Your task to perform on an android device: Do I have any events today? Image 0: 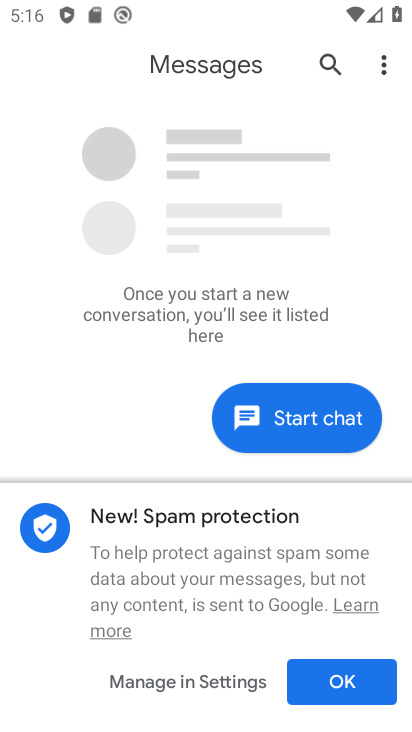
Step 0: press home button
Your task to perform on an android device: Do I have any events today? Image 1: 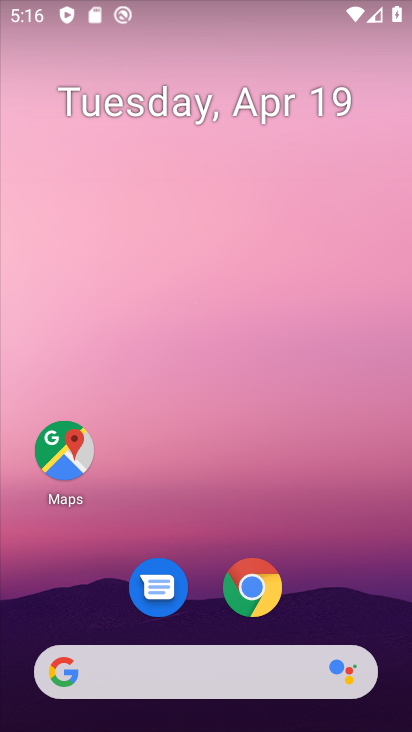
Step 1: click (136, 110)
Your task to perform on an android device: Do I have any events today? Image 2: 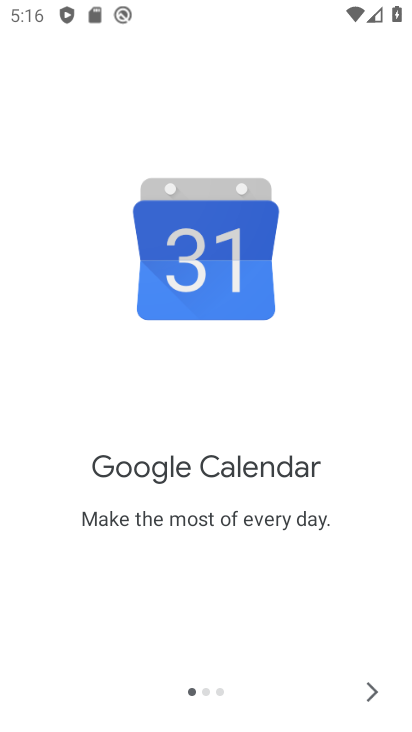
Step 2: click (382, 684)
Your task to perform on an android device: Do I have any events today? Image 3: 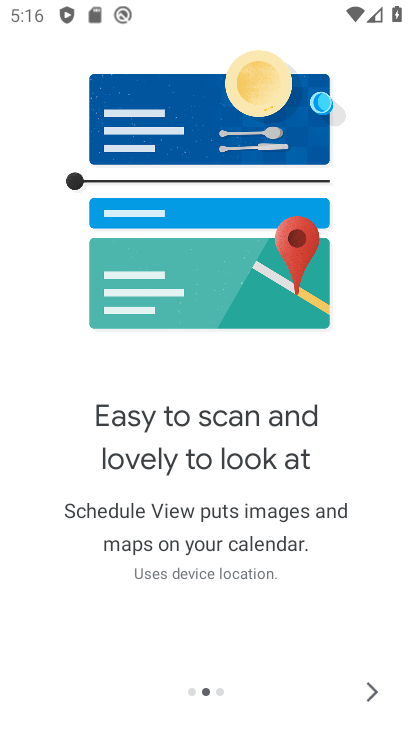
Step 3: click (382, 684)
Your task to perform on an android device: Do I have any events today? Image 4: 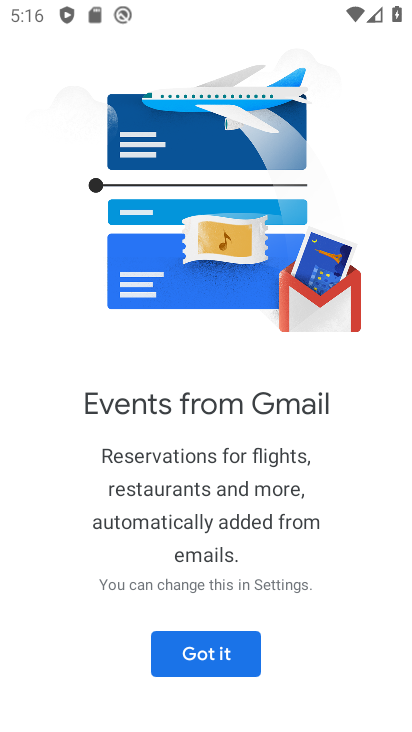
Step 4: click (230, 647)
Your task to perform on an android device: Do I have any events today? Image 5: 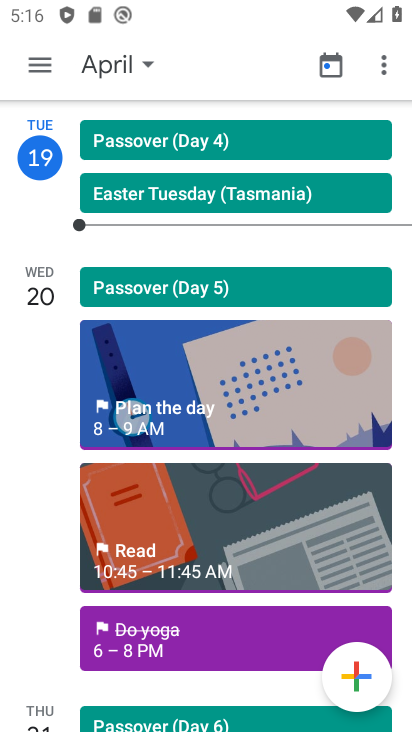
Step 5: click (223, 208)
Your task to perform on an android device: Do I have any events today? Image 6: 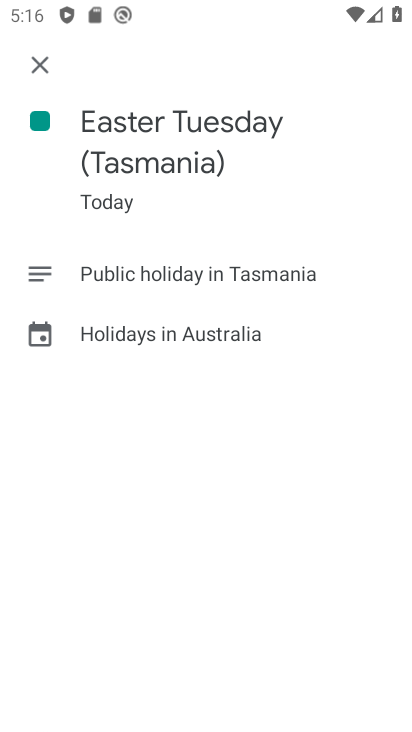
Step 6: task complete